Your task to perform on an android device: turn on wifi Image 0: 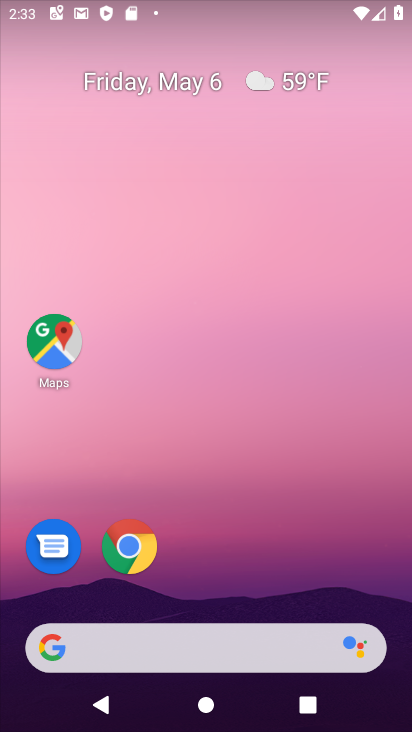
Step 0: drag from (246, 573) to (245, 81)
Your task to perform on an android device: turn on wifi Image 1: 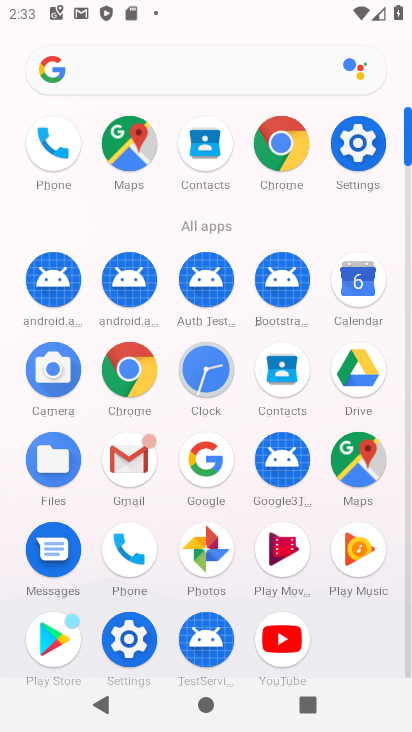
Step 1: click (361, 143)
Your task to perform on an android device: turn on wifi Image 2: 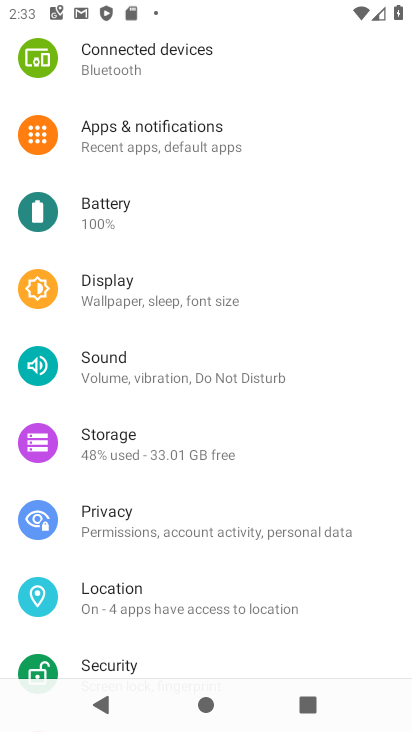
Step 2: drag from (294, 139) to (281, 595)
Your task to perform on an android device: turn on wifi Image 3: 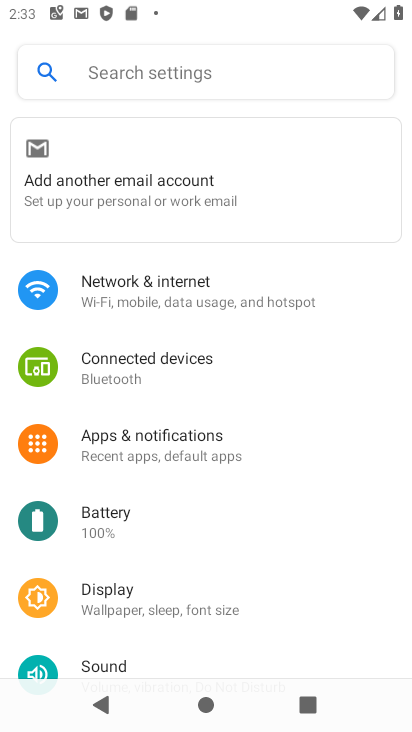
Step 3: click (202, 302)
Your task to perform on an android device: turn on wifi Image 4: 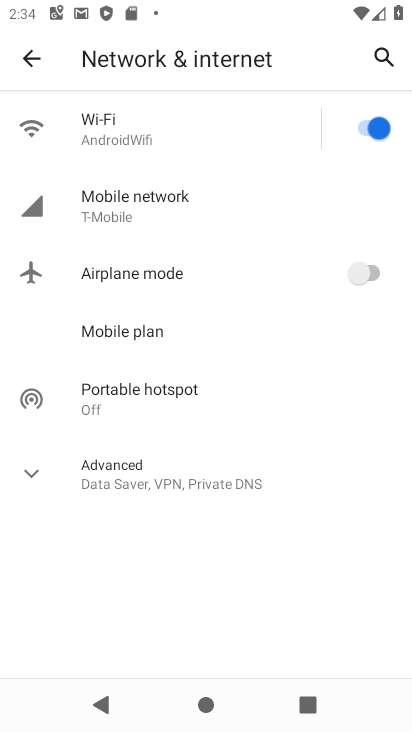
Step 4: task complete